Your task to perform on an android device: add a label to a message in the gmail app Image 0: 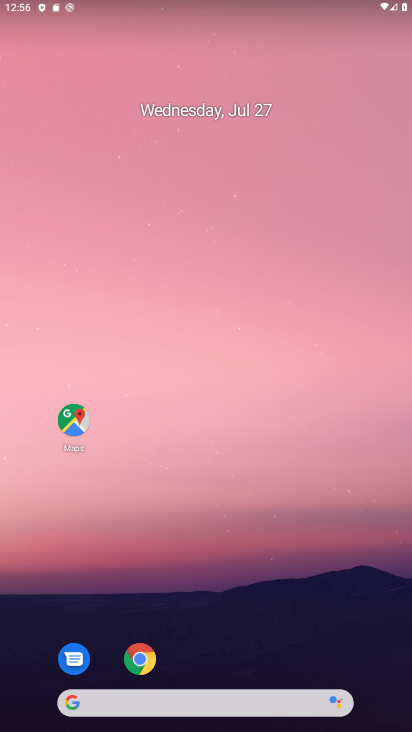
Step 0: drag from (267, 505) to (248, 21)
Your task to perform on an android device: add a label to a message in the gmail app Image 1: 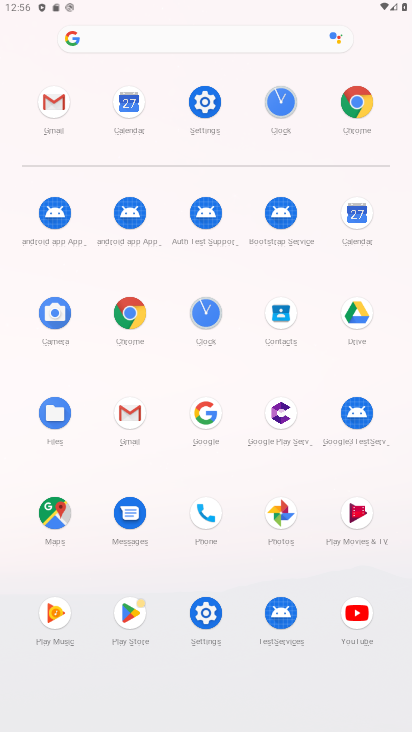
Step 1: click (48, 98)
Your task to perform on an android device: add a label to a message in the gmail app Image 2: 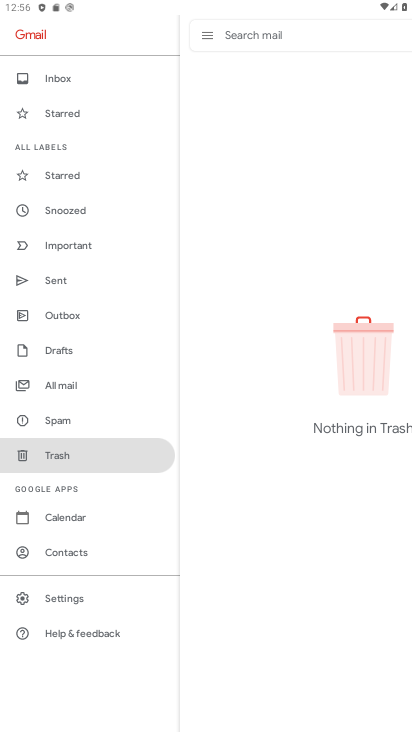
Step 2: click (66, 376)
Your task to perform on an android device: add a label to a message in the gmail app Image 3: 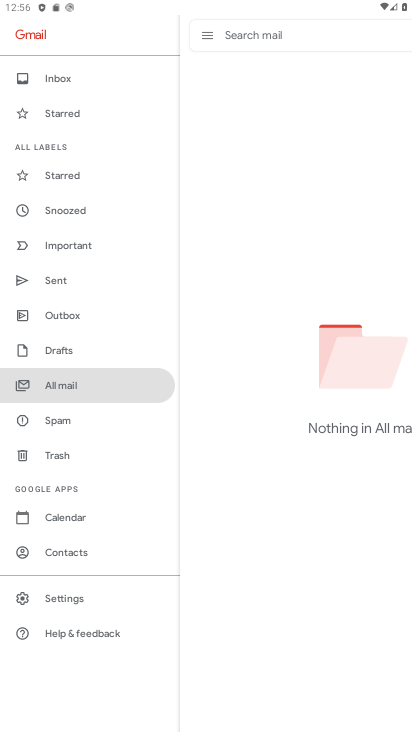
Step 3: task complete